Your task to perform on an android device: search for starred emails in the gmail app Image 0: 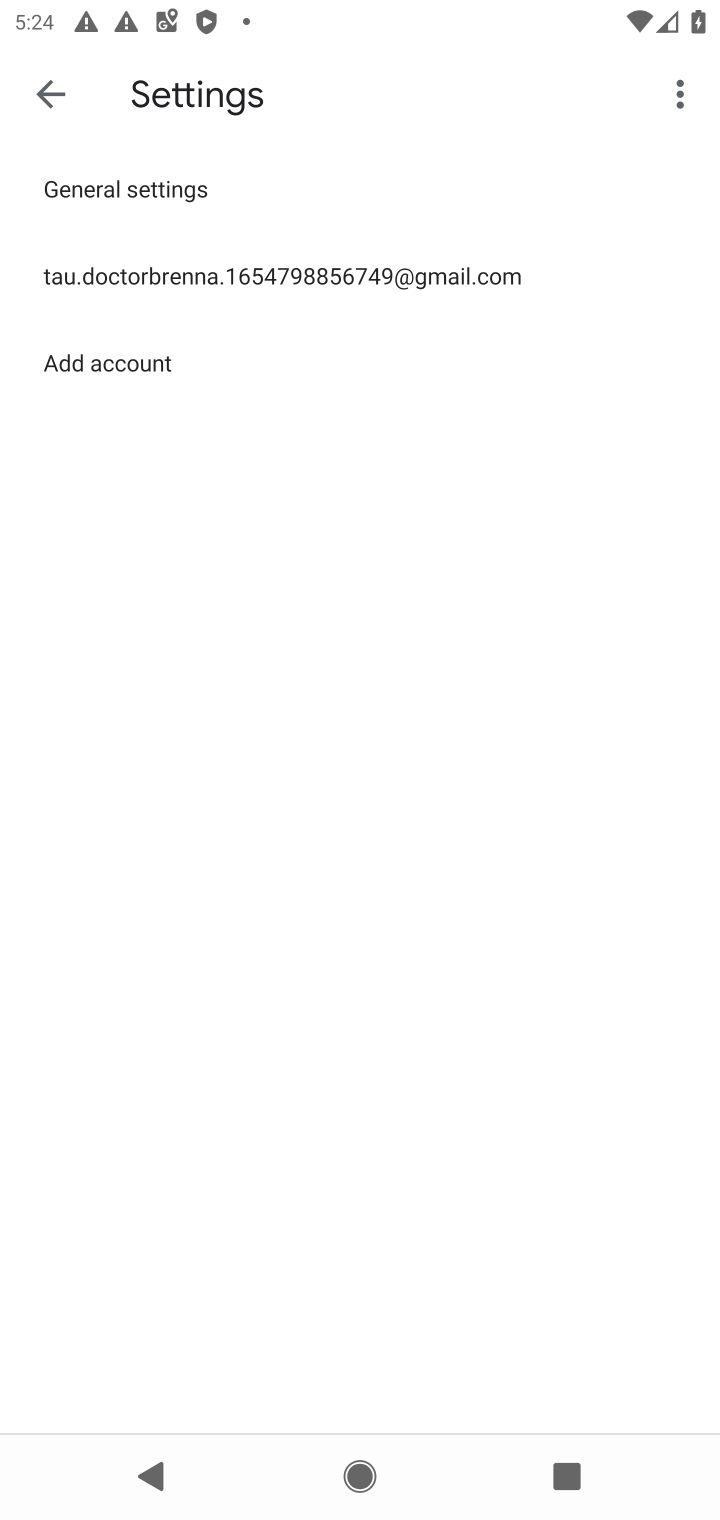
Step 0: click (64, 81)
Your task to perform on an android device: search for starred emails in the gmail app Image 1: 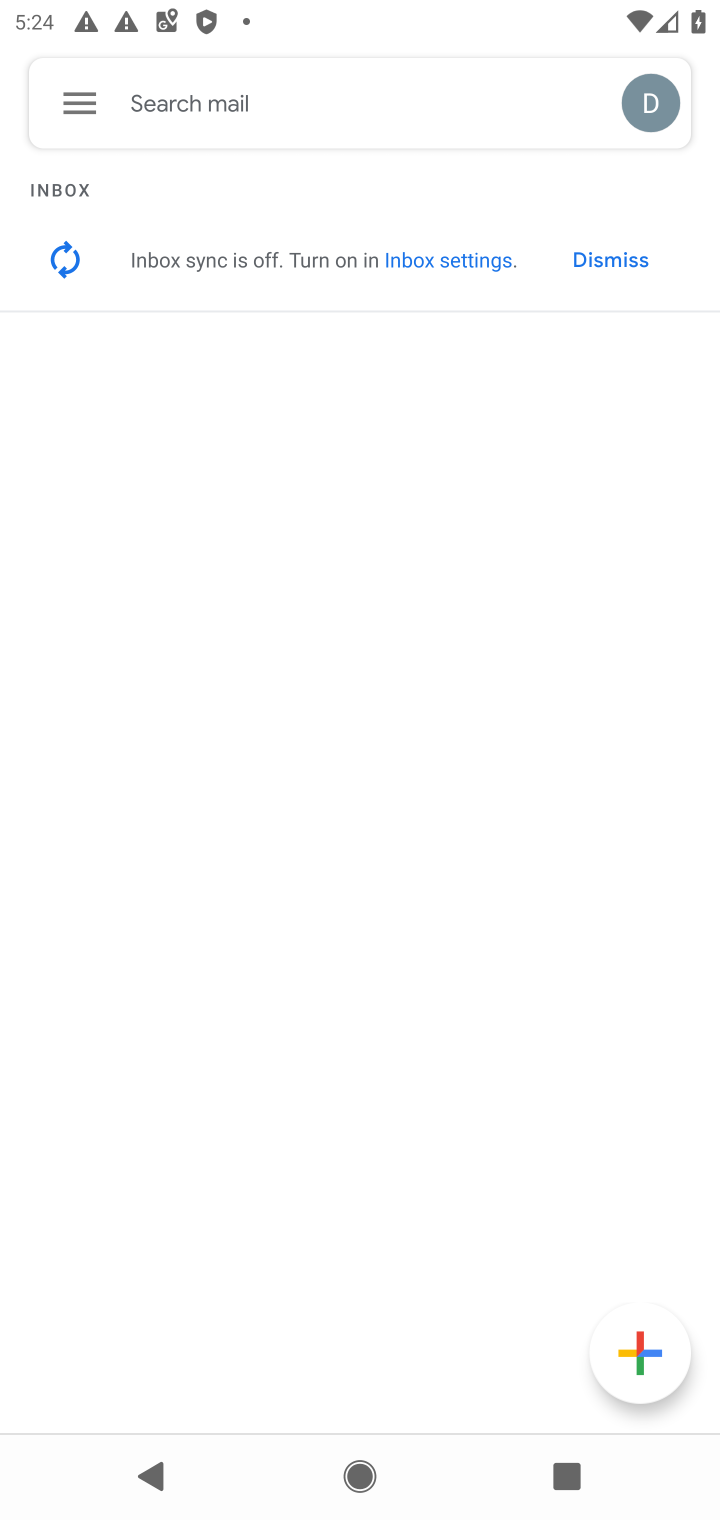
Step 1: click (64, 81)
Your task to perform on an android device: search for starred emails in the gmail app Image 2: 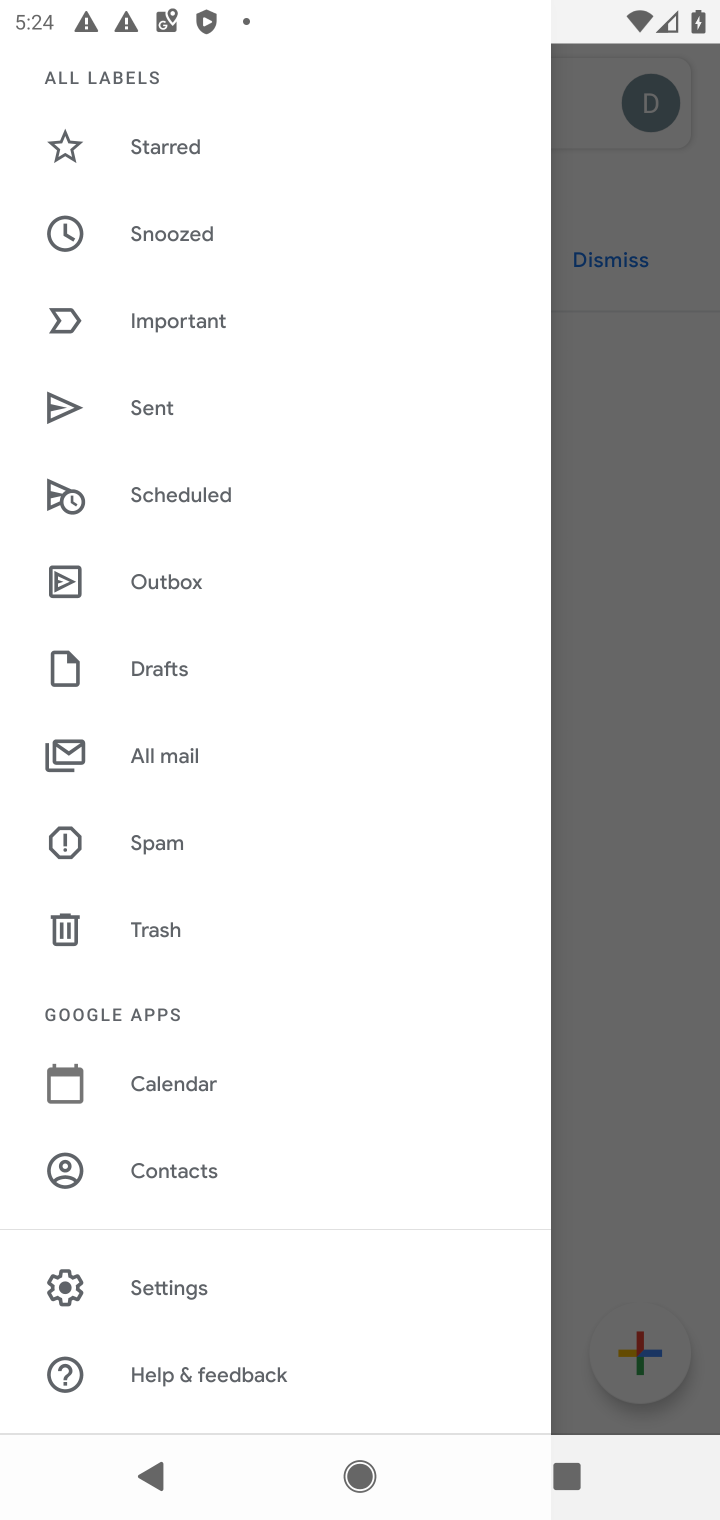
Step 2: click (153, 139)
Your task to perform on an android device: search for starred emails in the gmail app Image 3: 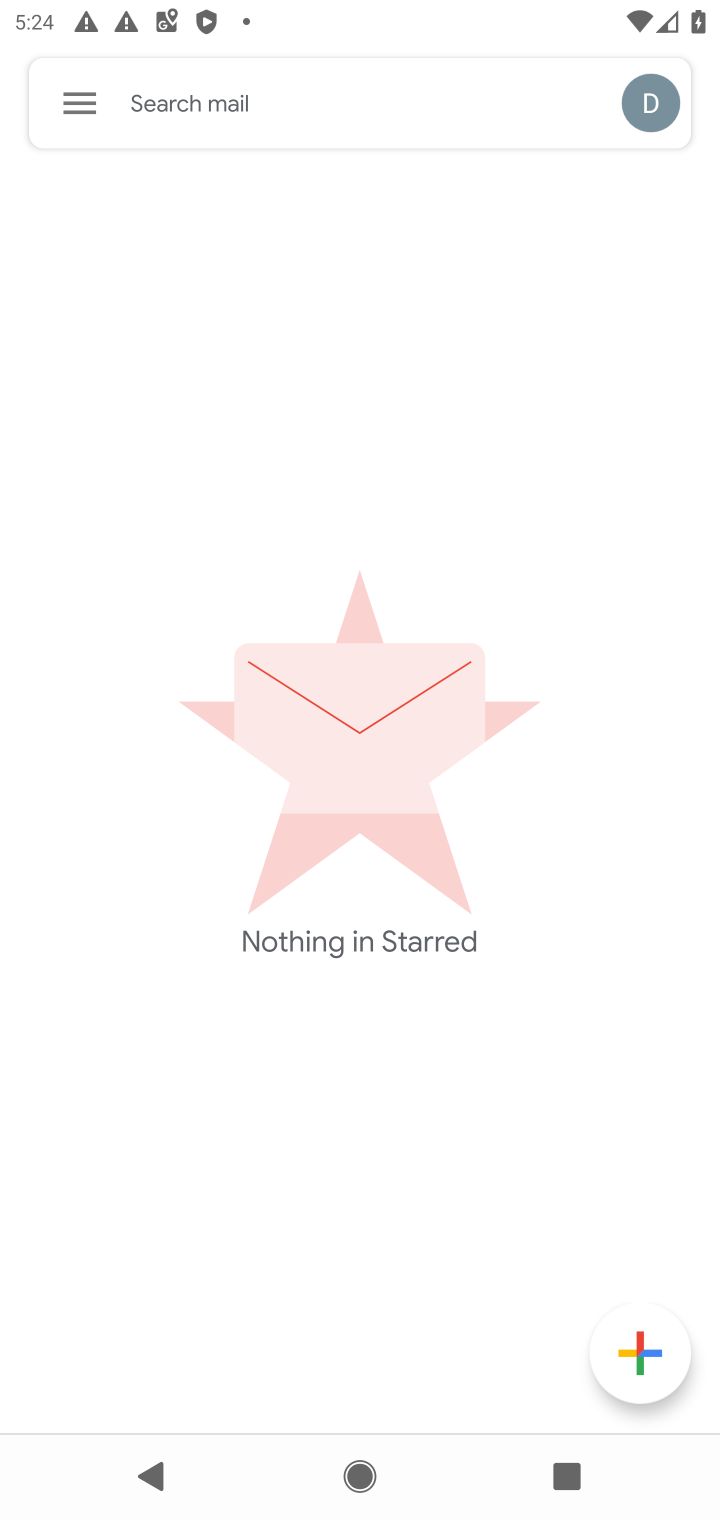
Step 3: task complete